Your task to perform on an android device: Open eBay Image 0: 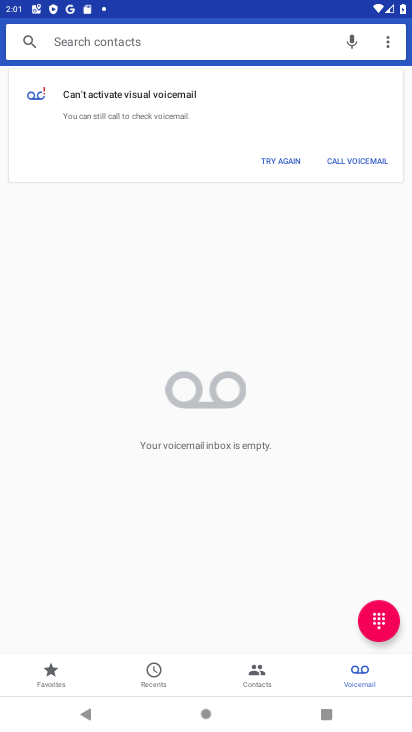
Step 0: press home button
Your task to perform on an android device: Open eBay Image 1: 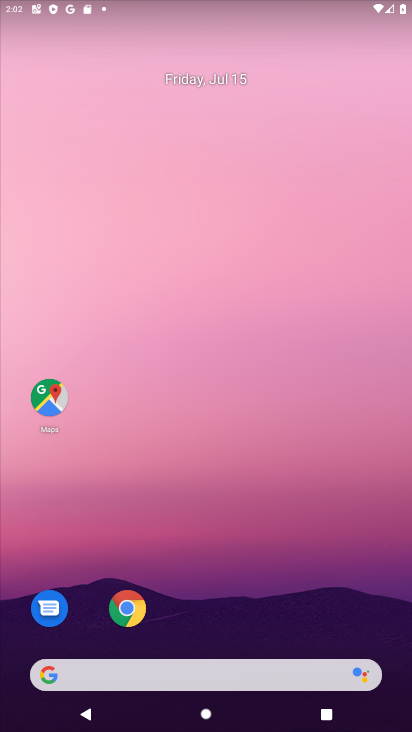
Step 1: click (188, 680)
Your task to perform on an android device: Open eBay Image 2: 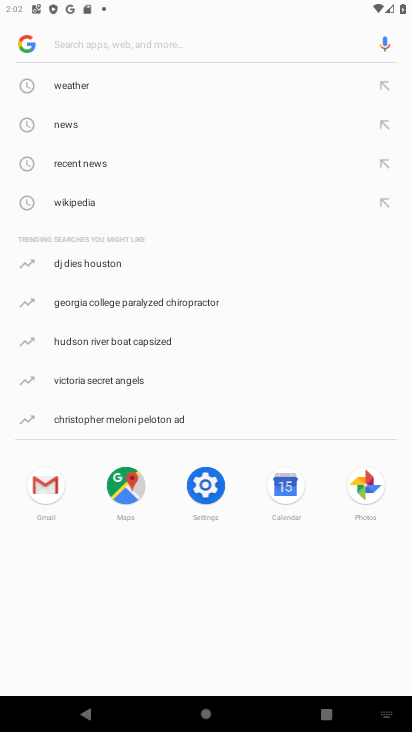
Step 2: type "ebay"
Your task to perform on an android device: Open eBay Image 3: 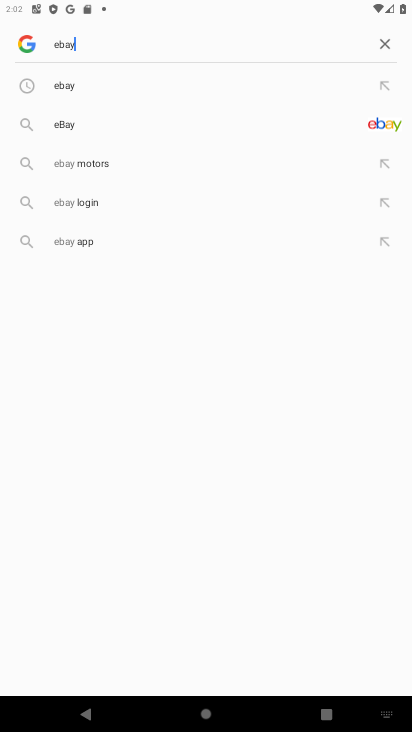
Step 3: click (171, 85)
Your task to perform on an android device: Open eBay Image 4: 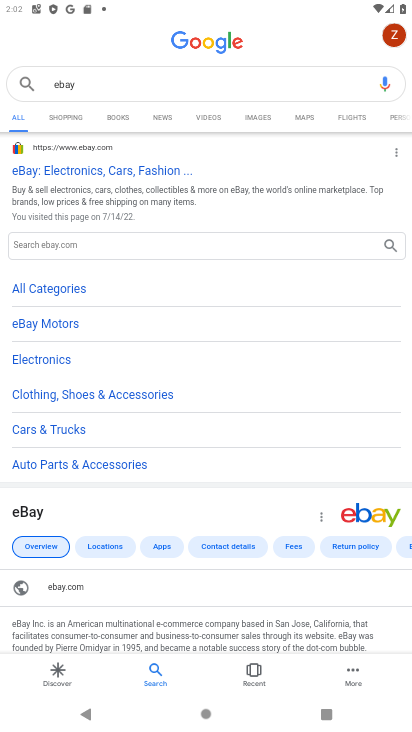
Step 4: click (105, 168)
Your task to perform on an android device: Open eBay Image 5: 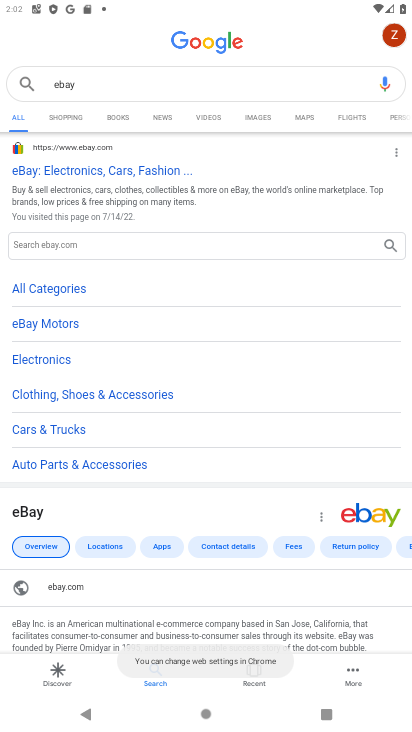
Step 5: click (103, 170)
Your task to perform on an android device: Open eBay Image 6: 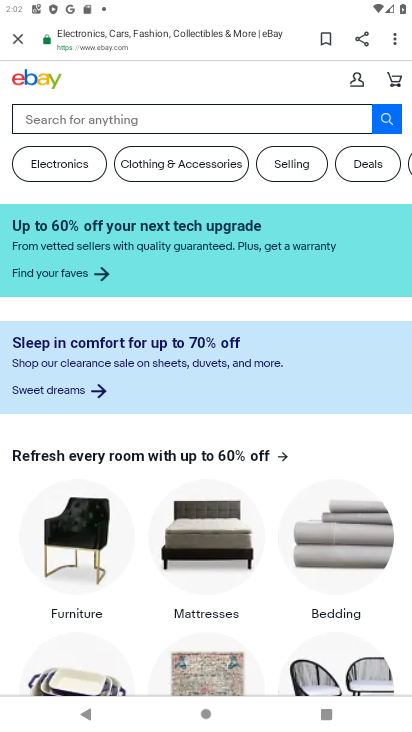
Step 6: task complete